Your task to perform on an android device: Go to CNN.com Image 0: 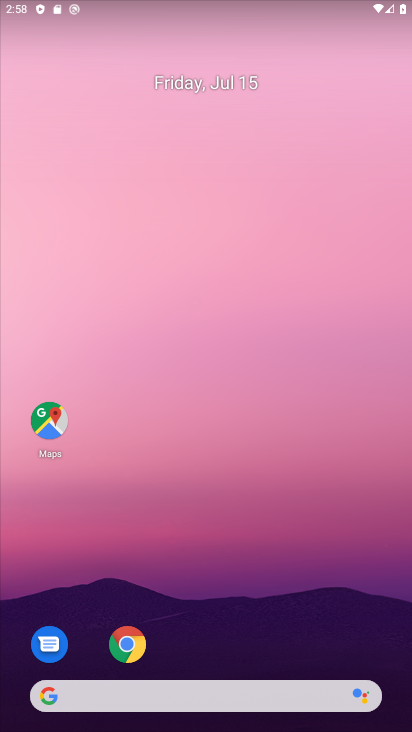
Step 0: click (134, 642)
Your task to perform on an android device: Go to CNN.com Image 1: 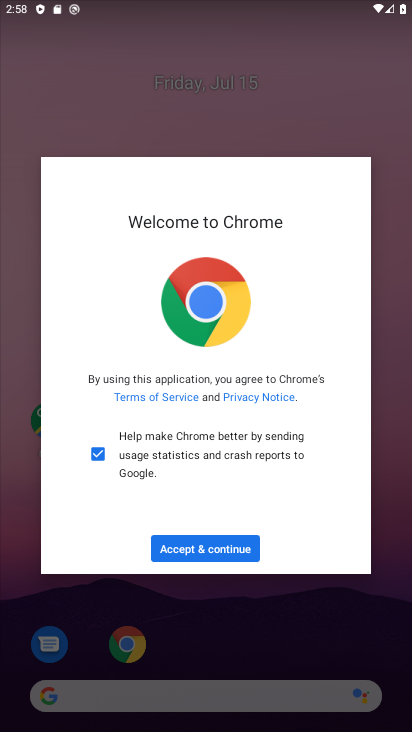
Step 1: click (217, 544)
Your task to perform on an android device: Go to CNN.com Image 2: 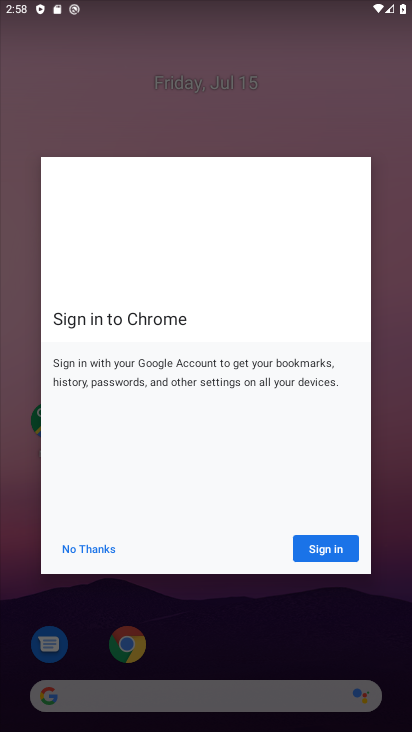
Step 2: click (336, 546)
Your task to perform on an android device: Go to CNN.com Image 3: 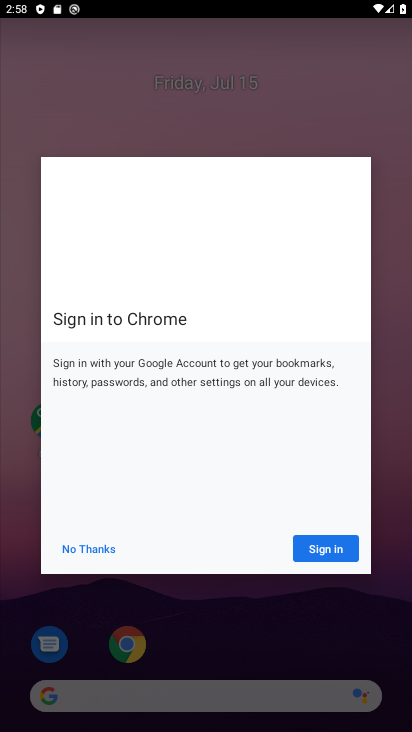
Step 3: click (336, 546)
Your task to perform on an android device: Go to CNN.com Image 4: 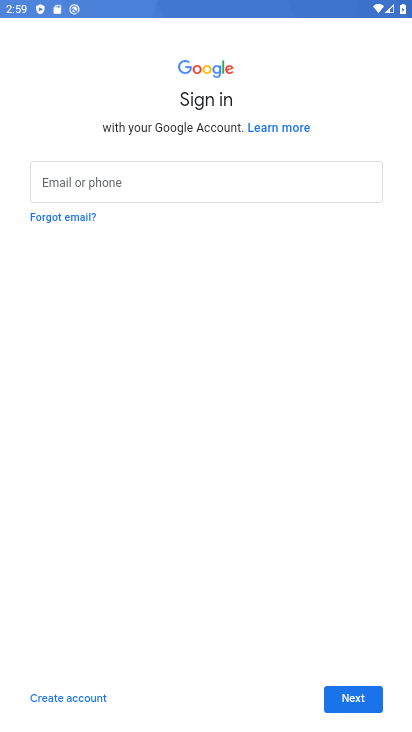
Step 4: task complete